Your task to perform on an android device: open the mobile data screen to see how much data has been used Image 0: 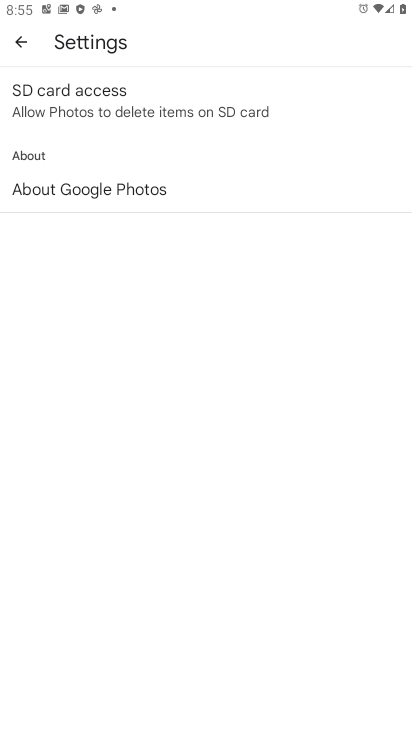
Step 0: press home button
Your task to perform on an android device: open the mobile data screen to see how much data has been used Image 1: 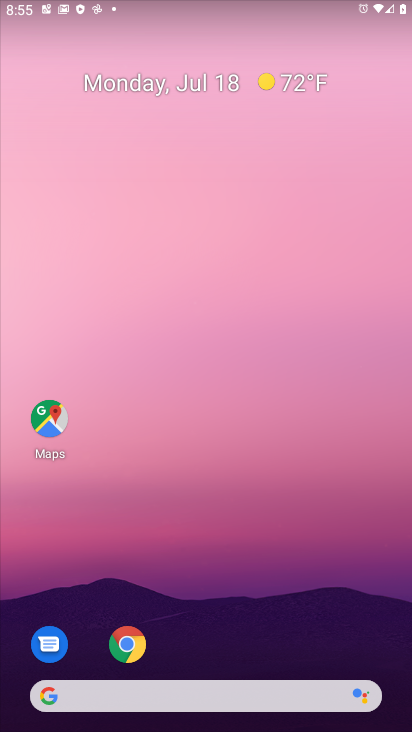
Step 1: drag from (395, 670) to (275, 28)
Your task to perform on an android device: open the mobile data screen to see how much data has been used Image 2: 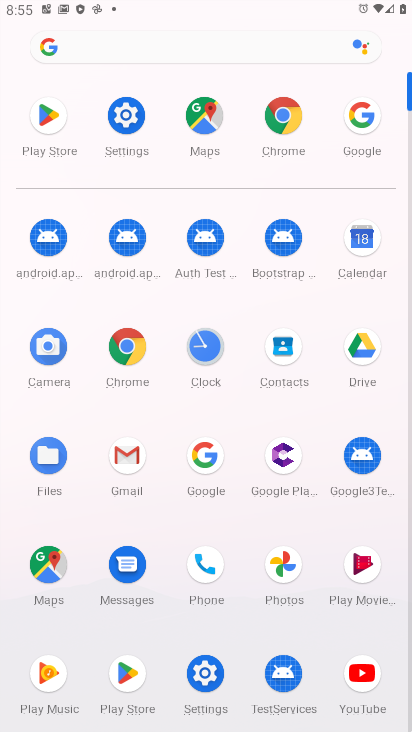
Step 2: click (111, 115)
Your task to perform on an android device: open the mobile data screen to see how much data has been used Image 3: 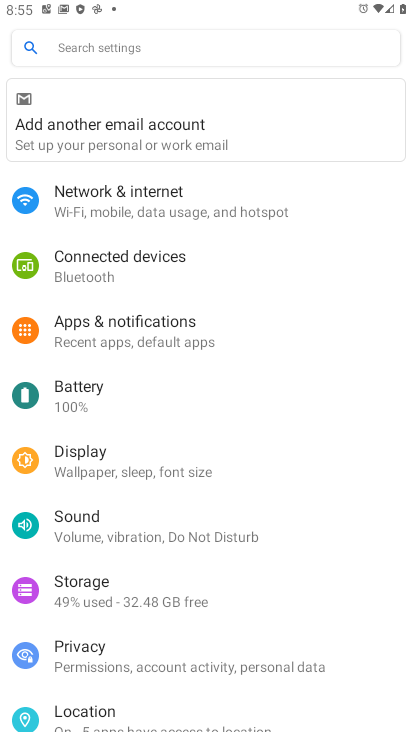
Step 3: click (162, 207)
Your task to perform on an android device: open the mobile data screen to see how much data has been used Image 4: 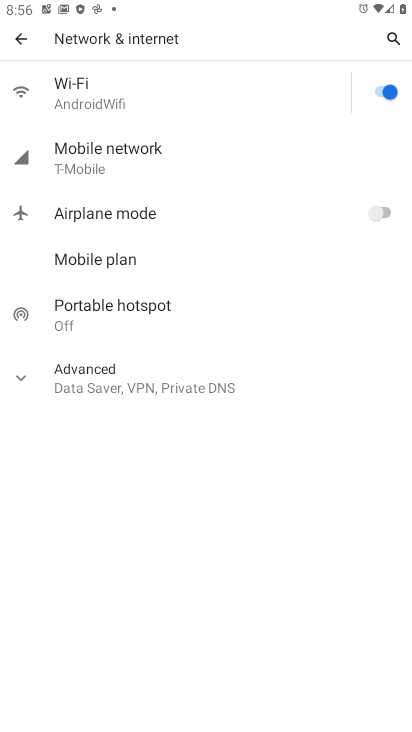
Step 4: click (100, 173)
Your task to perform on an android device: open the mobile data screen to see how much data has been used Image 5: 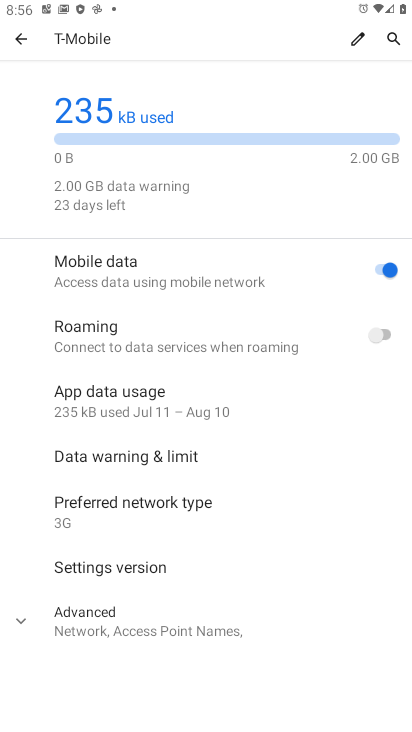
Step 5: click (115, 398)
Your task to perform on an android device: open the mobile data screen to see how much data has been used Image 6: 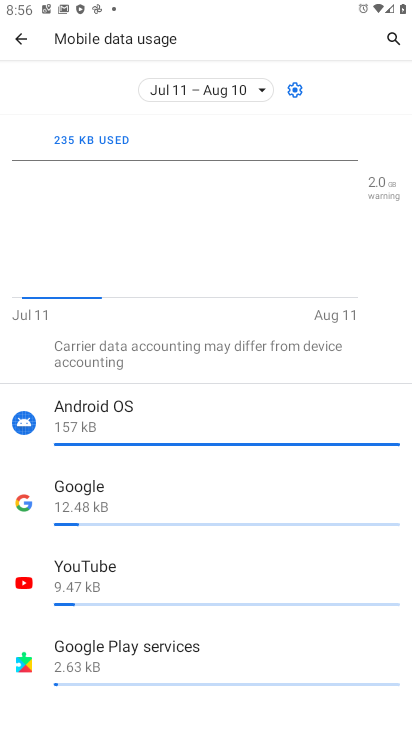
Step 6: task complete